Your task to perform on an android device: Search for seafood restaurants on Google Maps Image 0: 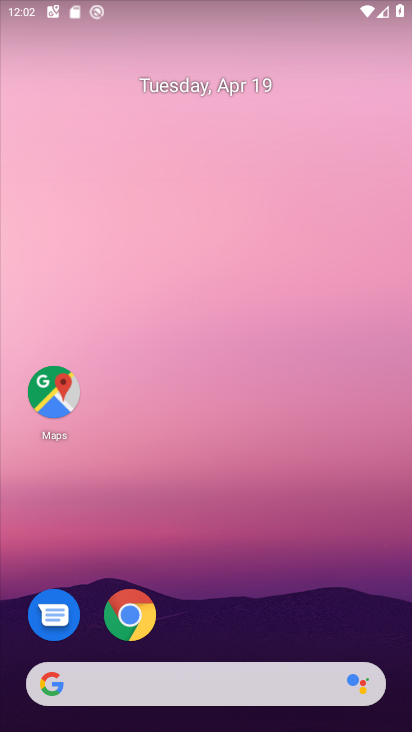
Step 0: click (59, 390)
Your task to perform on an android device: Search for seafood restaurants on Google Maps Image 1: 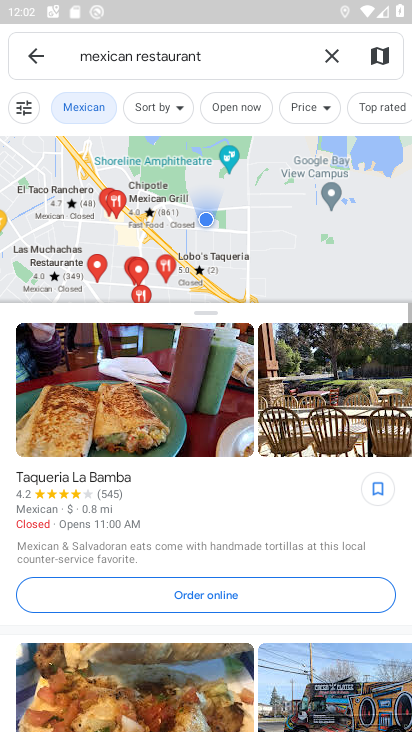
Step 1: click (336, 56)
Your task to perform on an android device: Search for seafood restaurants on Google Maps Image 2: 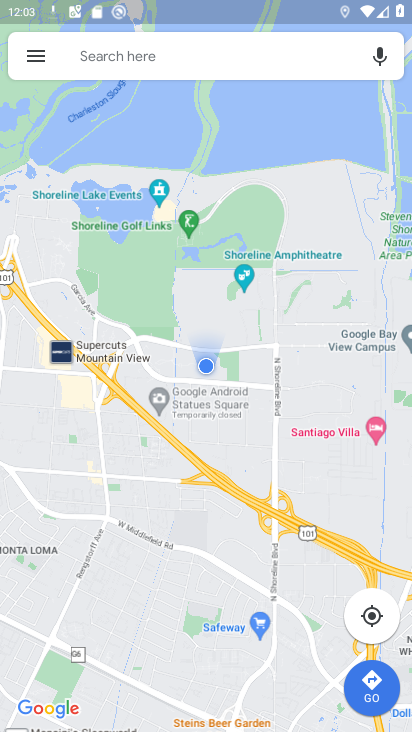
Step 2: click (134, 61)
Your task to perform on an android device: Search for seafood restaurants on Google Maps Image 3: 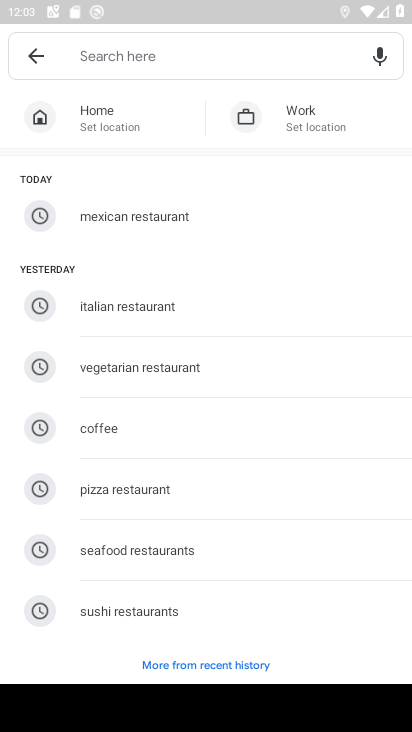
Step 3: click (176, 550)
Your task to perform on an android device: Search for seafood restaurants on Google Maps Image 4: 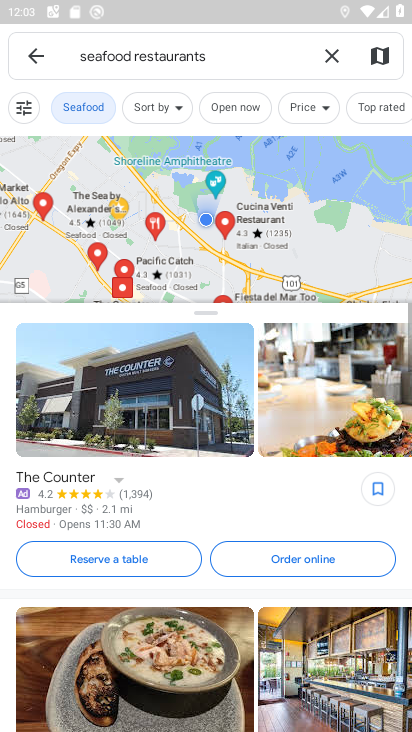
Step 4: click (231, 392)
Your task to perform on an android device: Search for seafood restaurants on Google Maps Image 5: 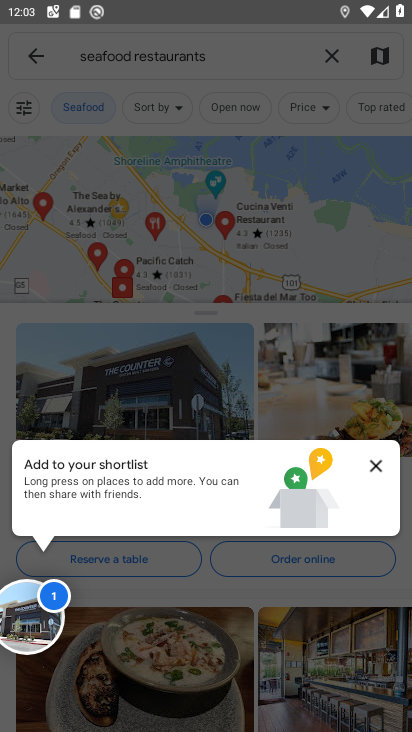
Step 5: click (374, 466)
Your task to perform on an android device: Search for seafood restaurants on Google Maps Image 6: 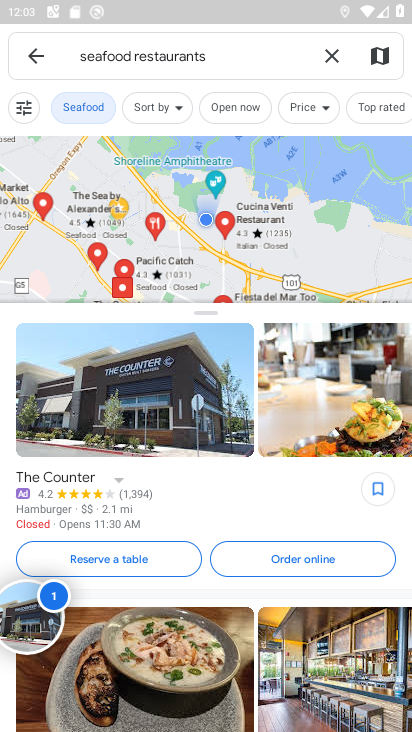
Step 6: task complete